Your task to perform on an android device: Go to privacy settings Image 0: 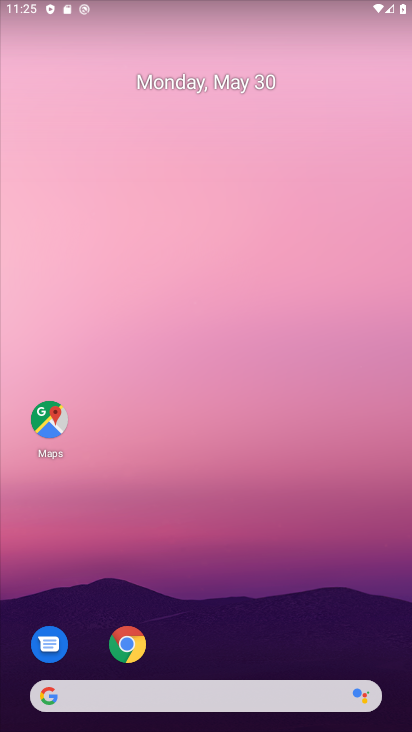
Step 0: drag from (214, 641) to (309, 69)
Your task to perform on an android device: Go to privacy settings Image 1: 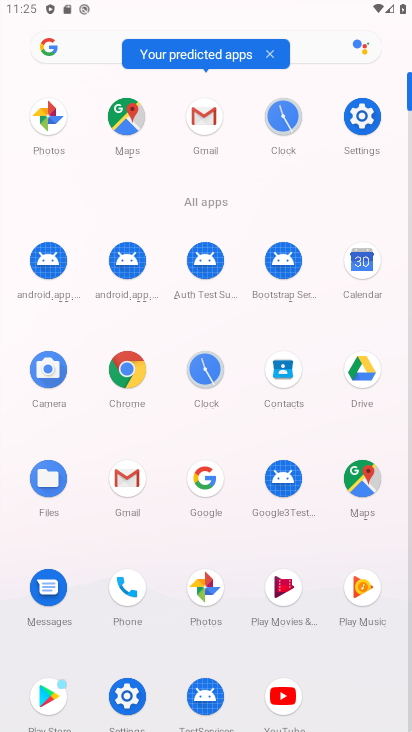
Step 1: click (130, 686)
Your task to perform on an android device: Go to privacy settings Image 2: 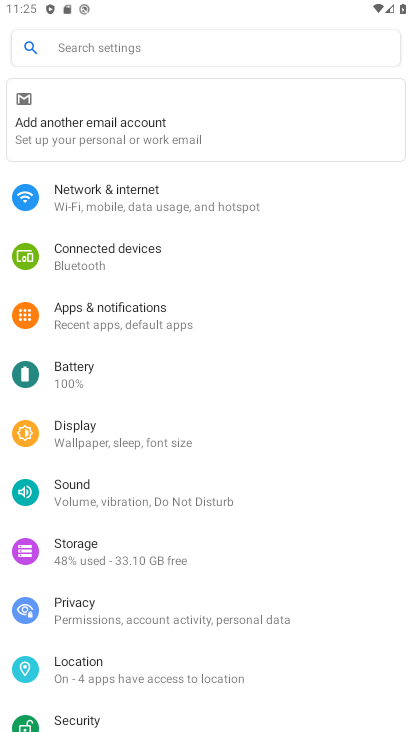
Step 2: click (106, 616)
Your task to perform on an android device: Go to privacy settings Image 3: 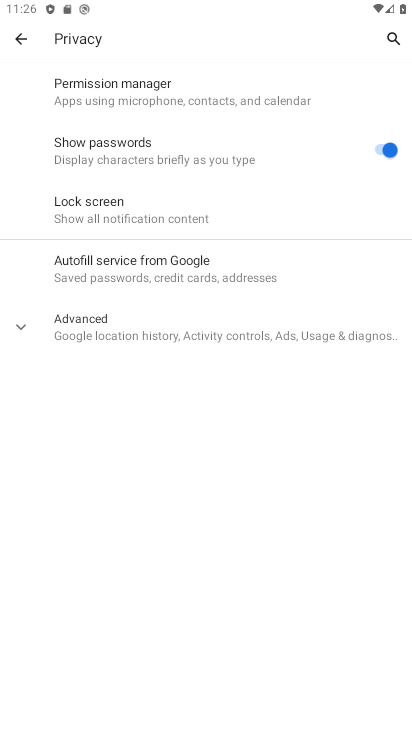
Step 3: task complete